Your task to perform on an android device: Open the calendar app, open the side menu, and click the "Day" option Image 0: 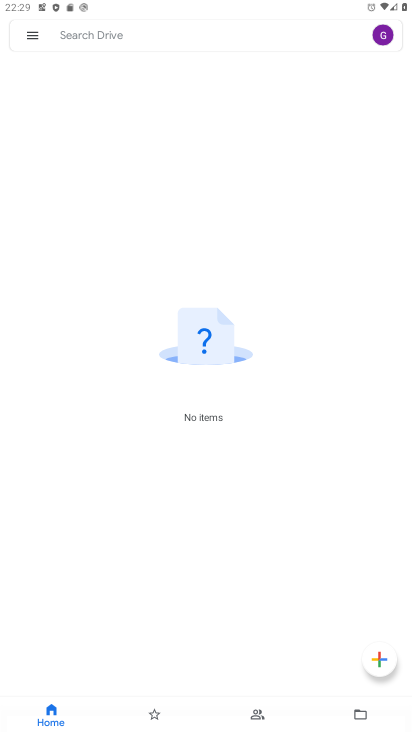
Step 0: press home button
Your task to perform on an android device: Open the calendar app, open the side menu, and click the "Day" option Image 1: 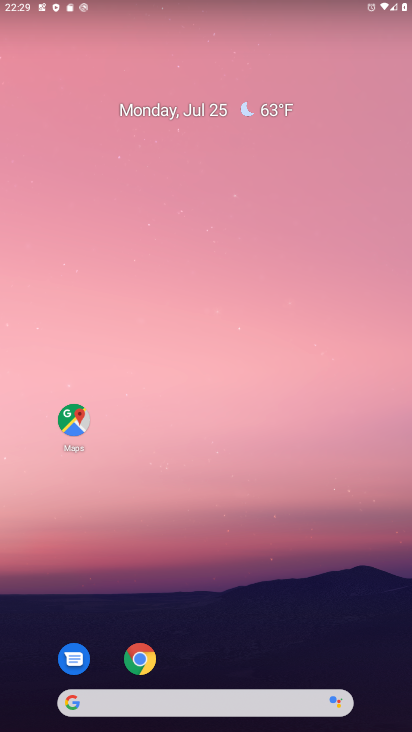
Step 1: drag from (242, 592) to (239, 59)
Your task to perform on an android device: Open the calendar app, open the side menu, and click the "Day" option Image 2: 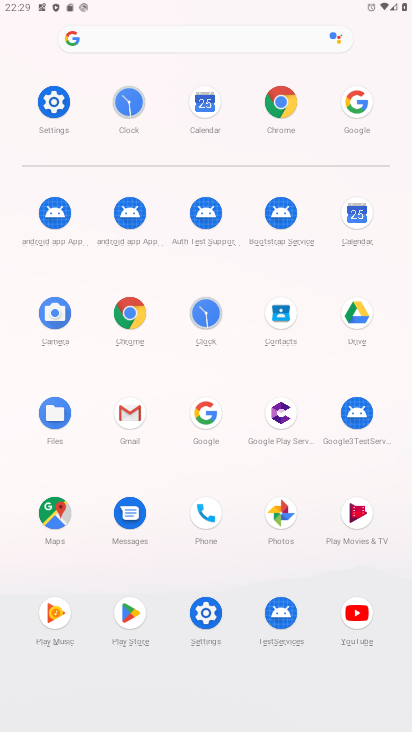
Step 2: click (353, 235)
Your task to perform on an android device: Open the calendar app, open the side menu, and click the "Day" option Image 3: 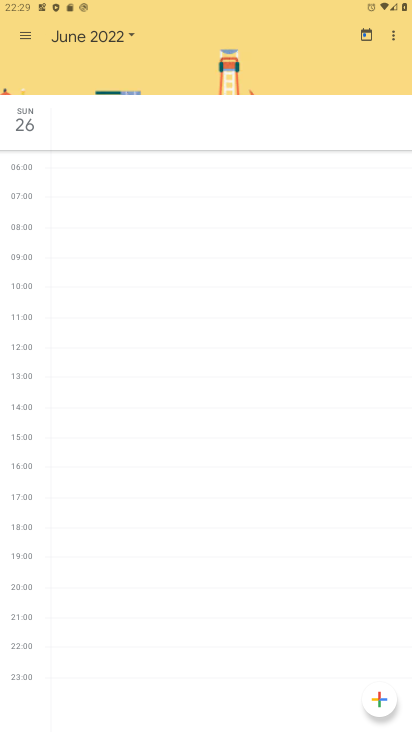
Step 3: click (25, 36)
Your task to perform on an android device: Open the calendar app, open the side menu, and click the "Day" option Image 4: 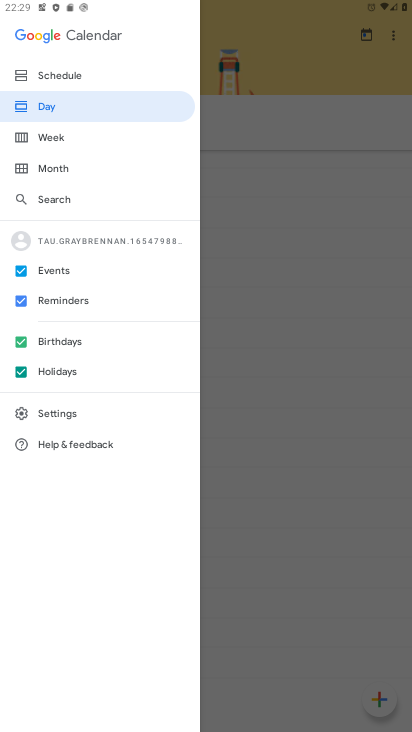
Step 4: click (53, 111)
Your task to perform on an android device: Open the calendar app, open the side menu, and click the "Day" option Image 5: 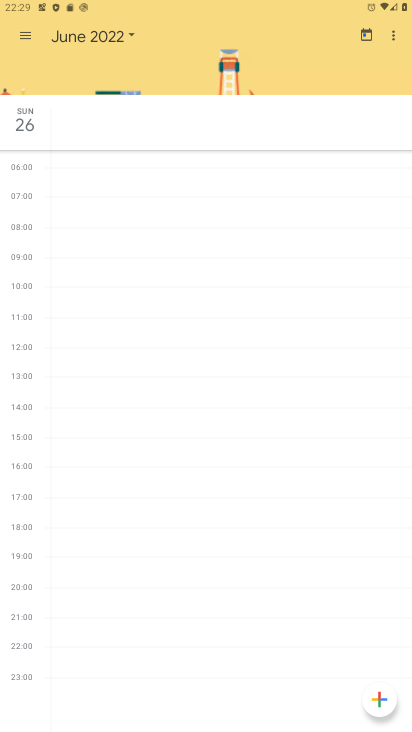
Step 5: task complete